Your task to perform on an android device: see tabs open on other devices in the chrome app Image 0: 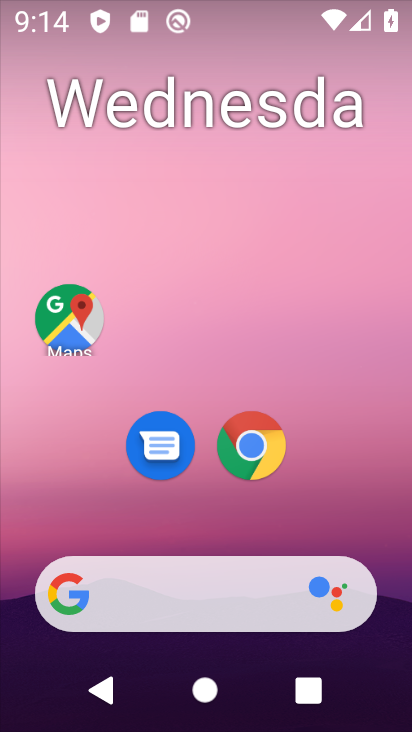
Step 0: click (251, 449)
Your task to perform on an android device: see tabs open on other devices in the chrome app Image 1: 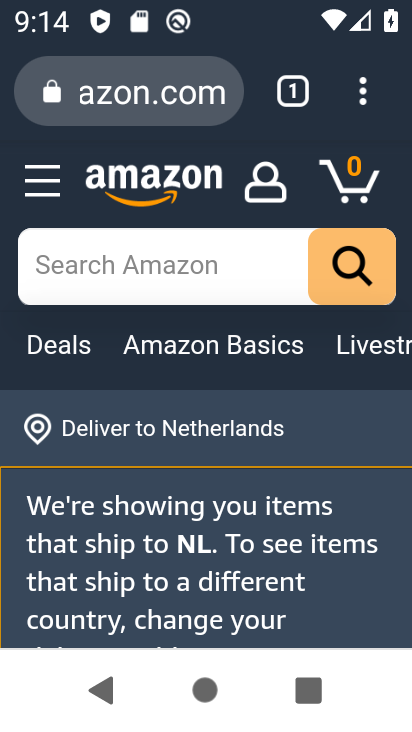
Step 1: click (359, 91)
Your task to perform on an android device: see tabs open on other devices in the chrome app Image 2: 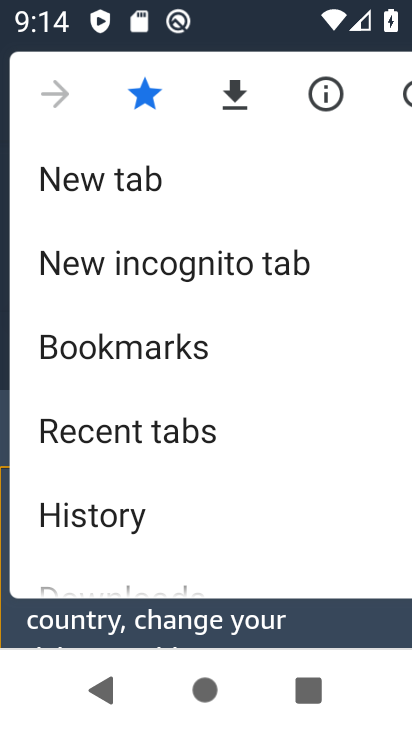
Step 2: click (112, 444)
Your task to perform on an android device: see tabs open on other devices in the chrome app Image 3: 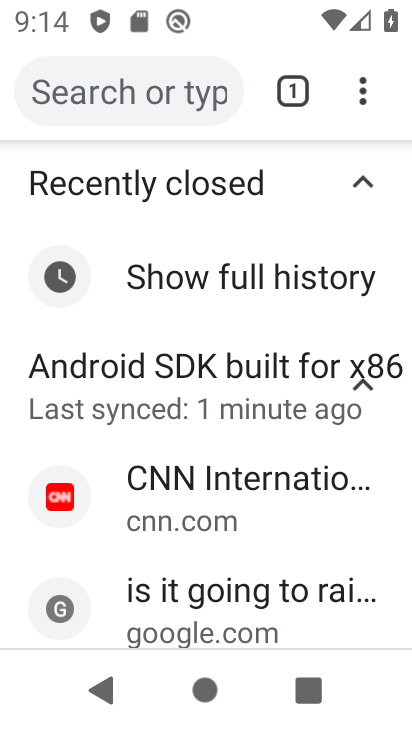
Step 3: task complete